Your task to perform on an android device: Open the Play Movies app and select the watchlist tab. Image 0: 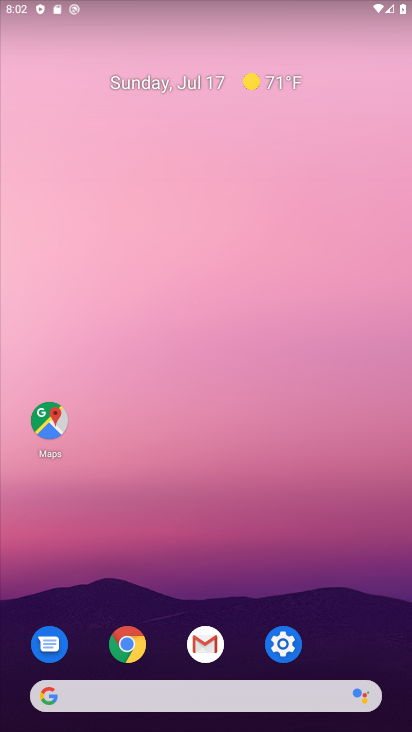
Step 0: drag from (277, 704) to (197, 131)
Your task to perform on an android device: Open the Play Movies app and select the watchlist tab. Image 1: 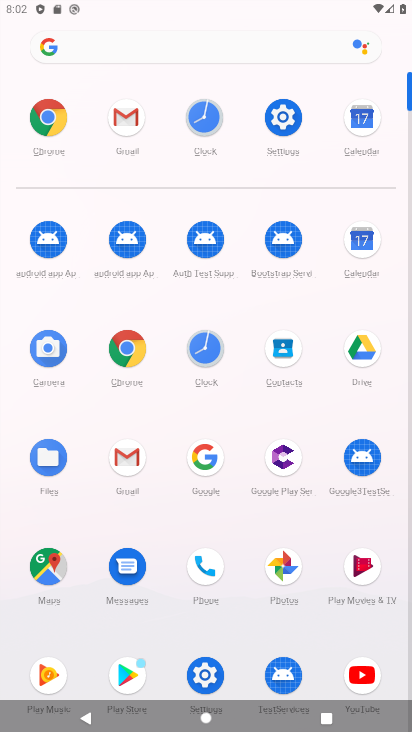
Step 1: click (360, 590)
Your task to perform on an android device: Open the Play Movies app and select the watchlist tab. Image 2: 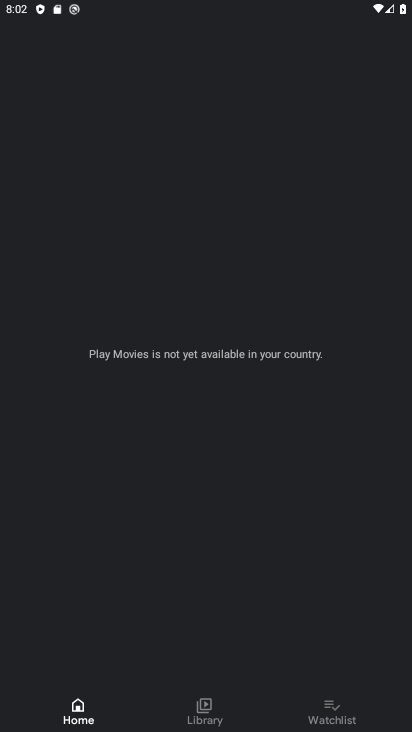
Step 2: click (335, 703)
Your task to perform on an android device: Open the Play Movies app and select the watchlist tab. Image 3: 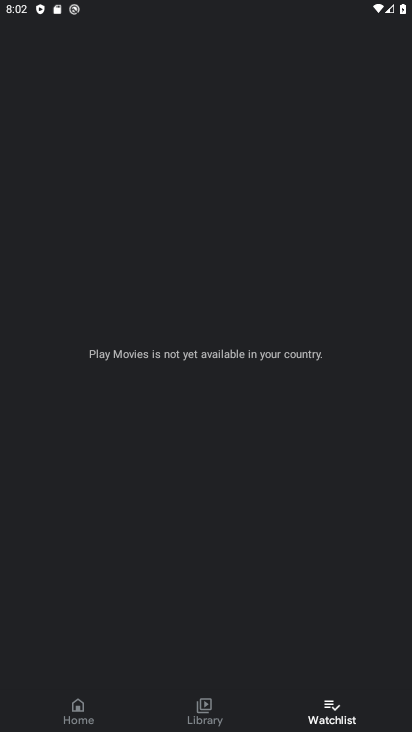
Step 3: task complete